Your task to perform on an android device: move an email to a new category in the gmail app Image 0: 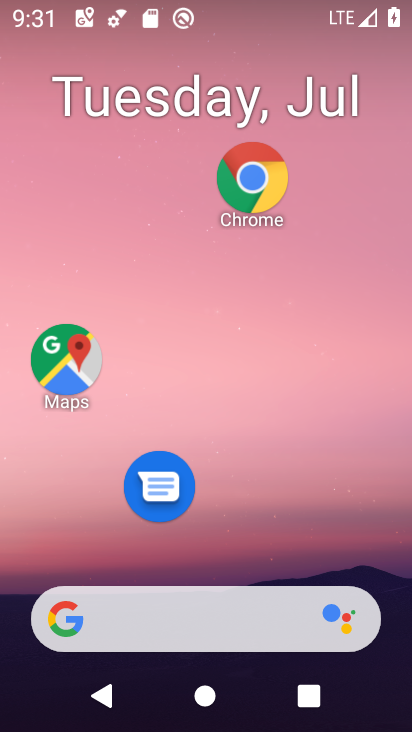
Step 0: drag from (260, 644) to (262, 52)
Your task to perform on an android device: move an email to a new category in the gmail app Image 1: 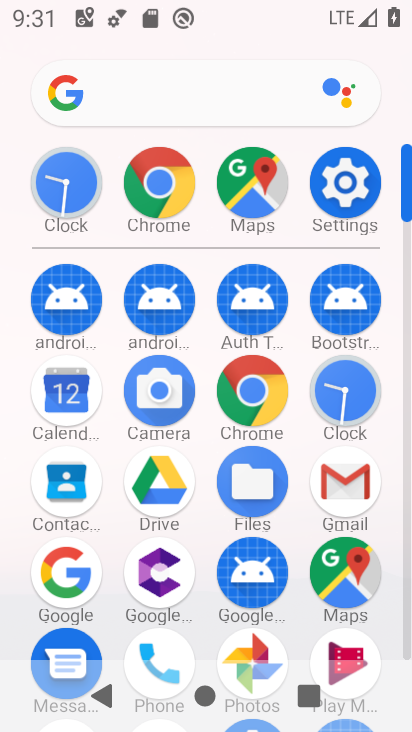
Step 1: click (265, 221)
Your task to perform on an android device: move an email to a new category in the gmail app Image 2: 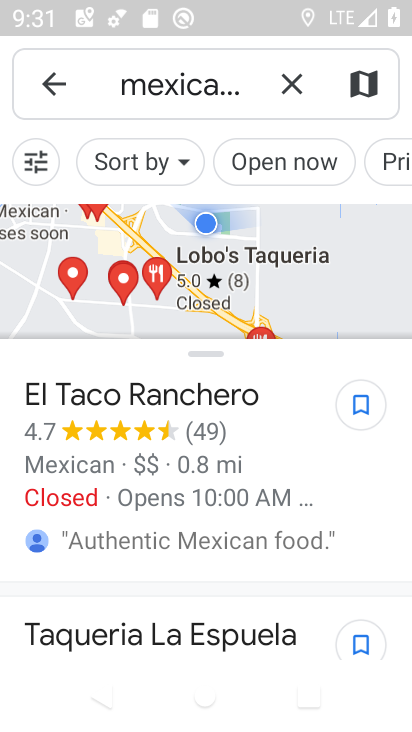
Step 2: press home button
Your task to perform on an android device: move an email to a new category in the gmail app Image 3: 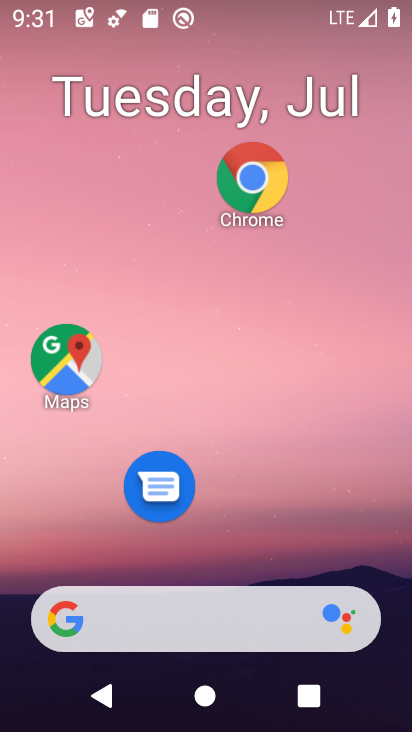
Step 3: drag from (210, 666) to (237, 132)
Your task to perform on an android device: move an email to a new category in the gmail app Image 4: 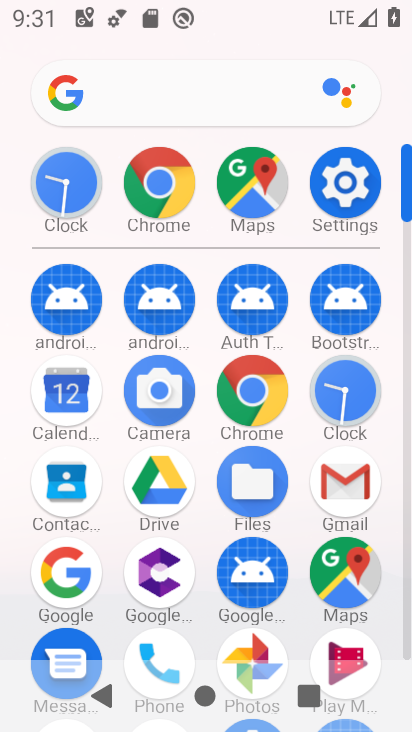
Step 4: click (365, 494)
Your task to perform on an android device: move an email to a new category in the gmail app Image 5: 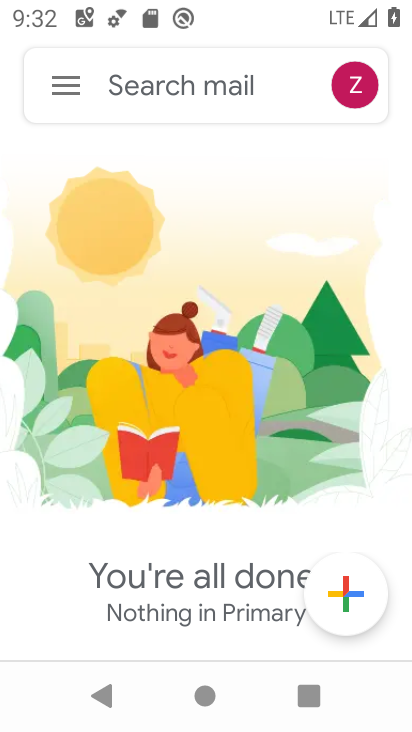
Step 5: click (60, 93)
Your task to perform on an android device: move an email to a new category in the gmail app Image 6: 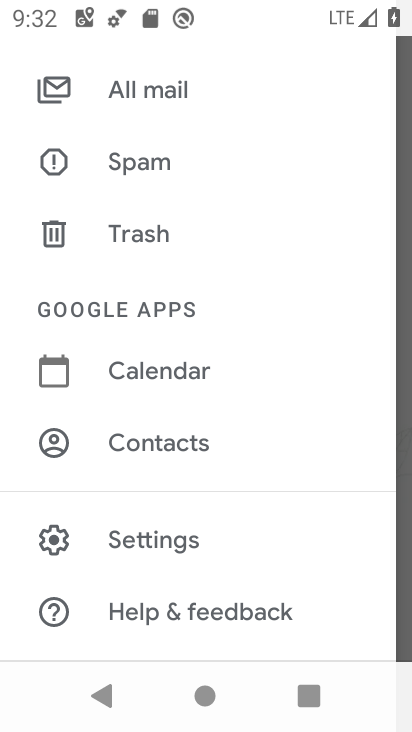
Step 6: click (187, 108)
Your task to perform on an android device: move an email to a new category in the gmail app Image 7: 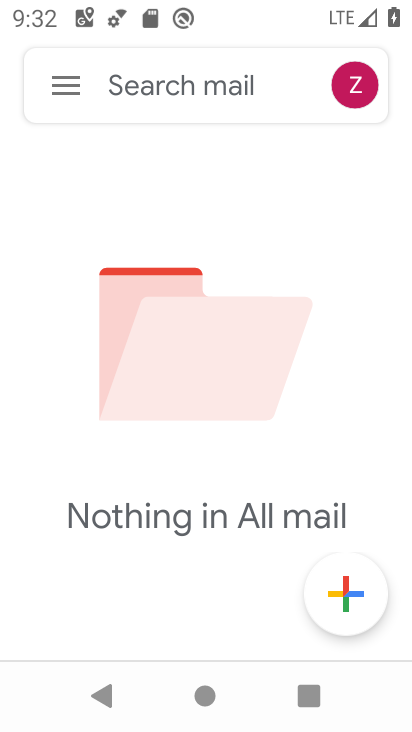
Step 7: task complete